Your task to perform on an android device: delete the emails in spam in the gmail app Image 0: 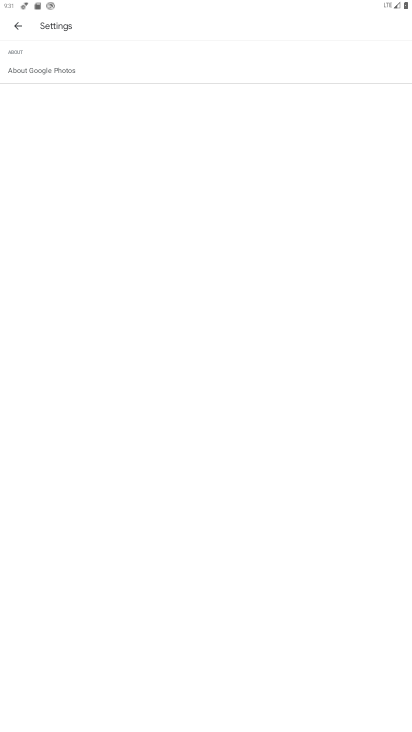
Step 0: press home button
Your task to perform on an android device: delete the emails in spam in the gmail app Image 1: 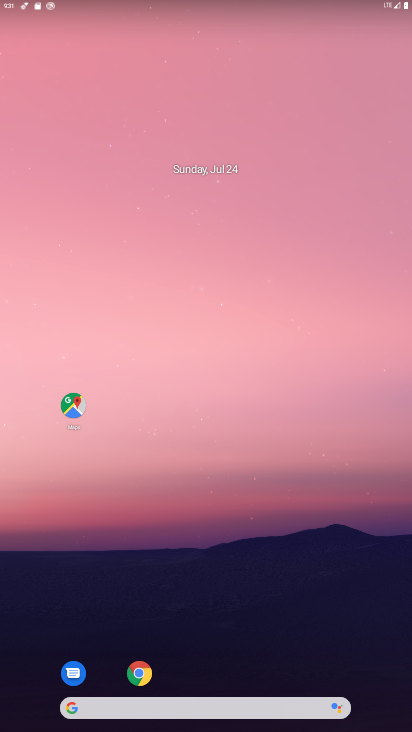
Step 1: drag from (223, 646) to (211, 343)
Your task to perform on an android device: delete the emails in spam in the gmail app Image 2: 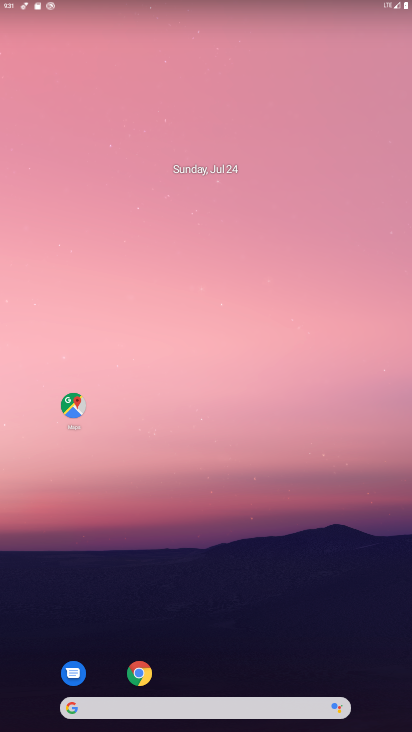
Step 2: drag from (226, 645) to (182, 4)
Your task to perform on an android device: delete the emails in spam in the gmail app Image 3: 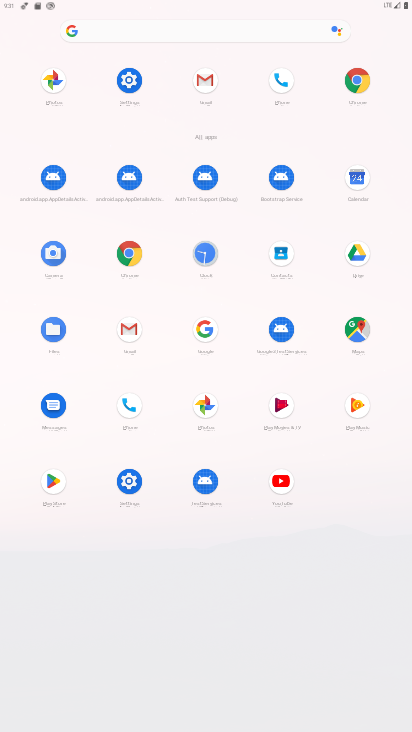
Step 3: click (129, 342)
Your task to perform on an android device: delete the emails in spam in the gmail app Image 4: 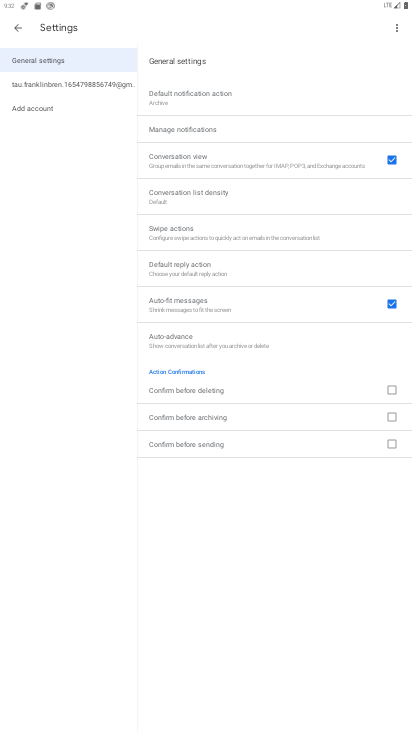
Step 4: click (13, 21)
Your task to perform on an android device: delete the emails in spam in the gmail app Image 5: 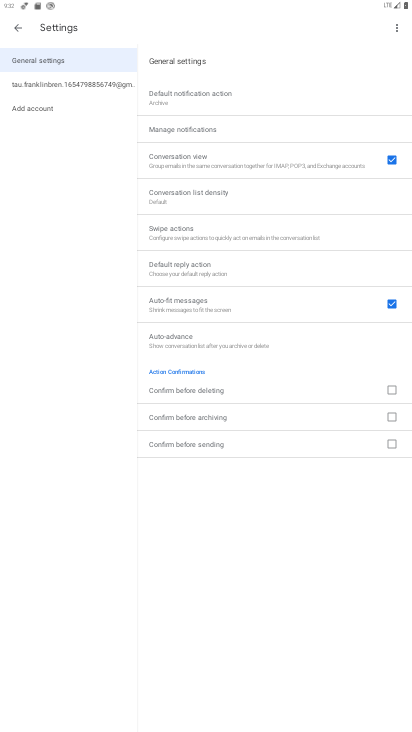
Step 5: click (18, 23)
Your task to perform on an android device: delete the emails in spam in the gmail app Image 6: 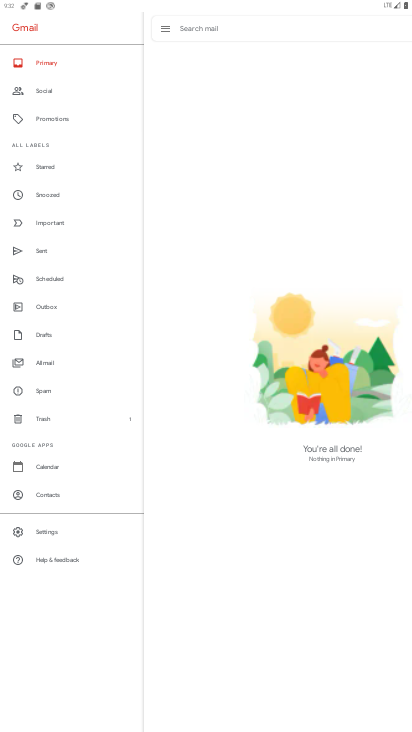
Step 6: click (39, 397)
Your task to perform on an android device: delete the emails in spam in the gmail app Image 7: 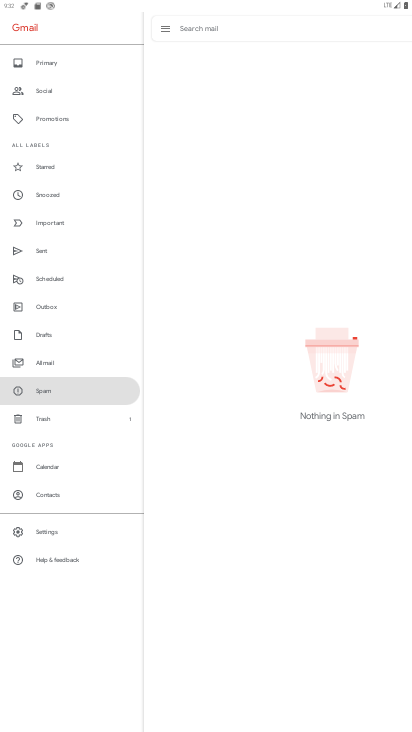
Step 7: task complete